Your task to perform on an android device: turn on wifi Image 0: 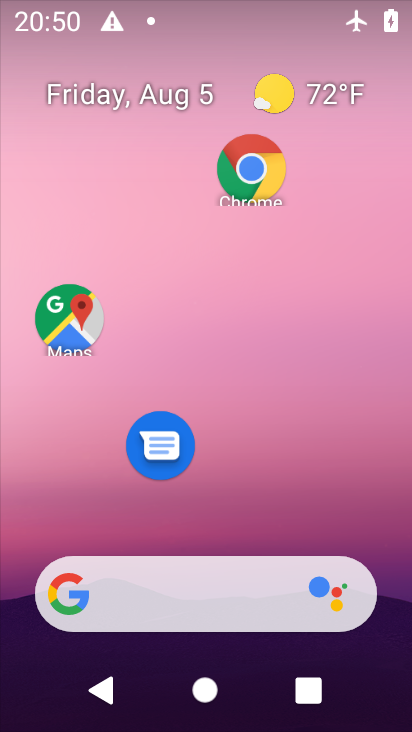
Step 0: drag from (195, 429) to (196, 125)
Your task to perform on an android device: turn on wifi Image 1: 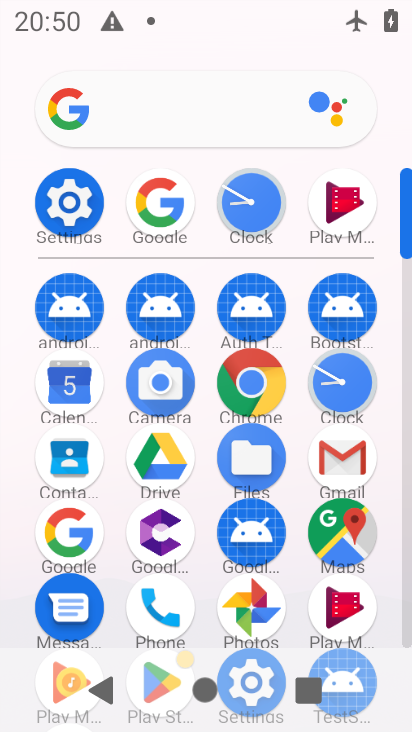
Step 1: click (63, 209)
Your task to perform on an android device: turn on wifi Image 2: 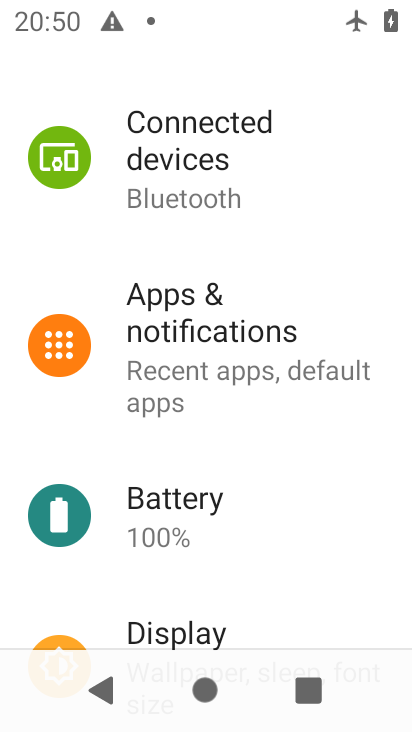
Step 2: drag from (196, 190) to (206, 608)
Your task to perform on an android device: turn on wifi Image 3: 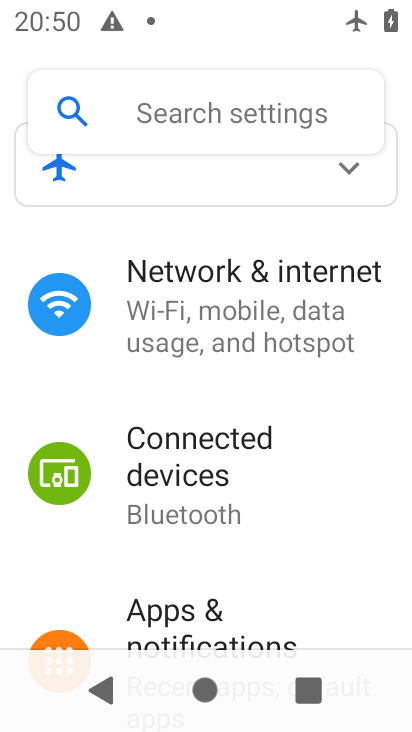
Step 3: click (209, 280)
Your task to perform on an android device: turn on wifi Image 4: 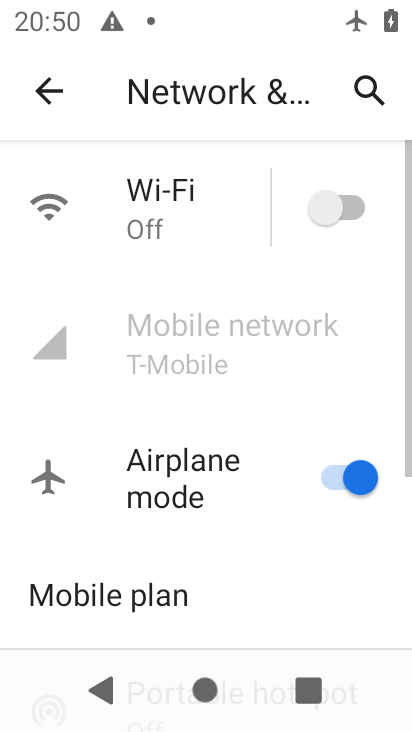
Step 4: click (341, 204)
Your task to perform on an android device: turn on wifi Image 5: 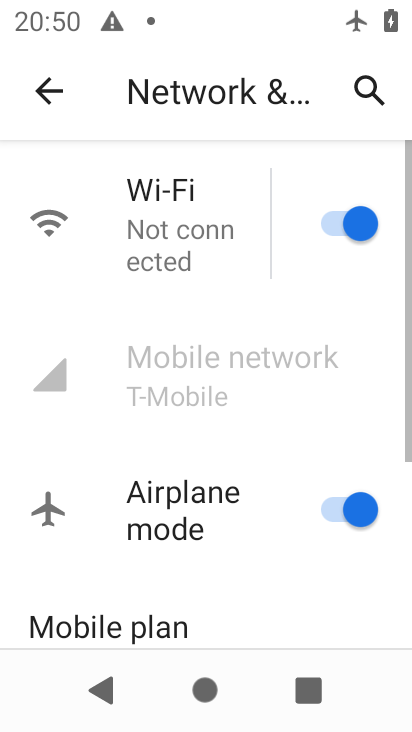
Step 5: task complete